Your task to perform on an android device: Open the web browser Image 0: 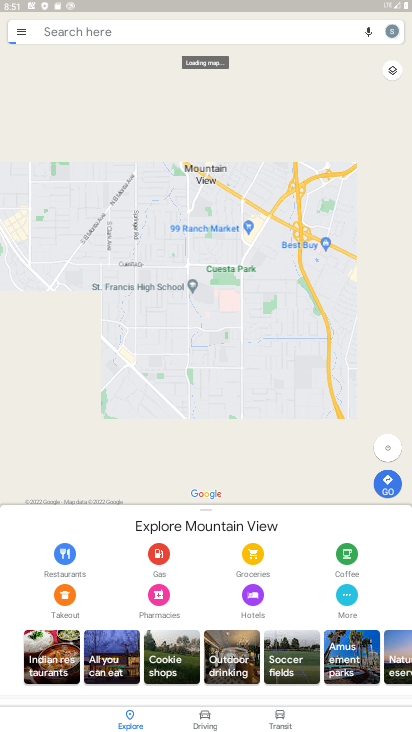
Step 0: press home button
Your task to perform on an android device: Open the web browser Image 1: 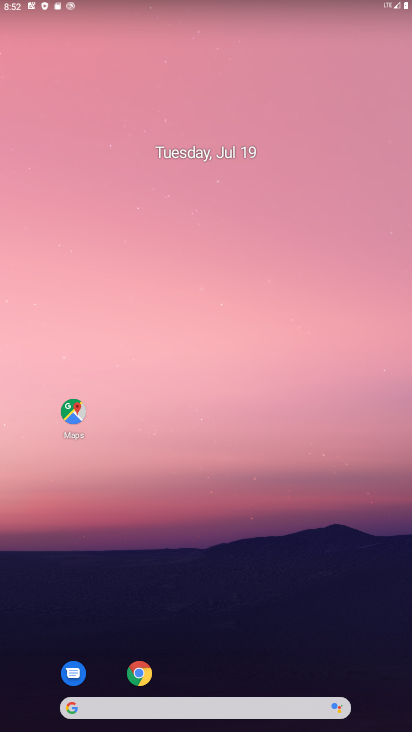
Step 1: drag from (361, 637) to (250, 57)
Your task to perform on an android device: Open the web browser Image 2: 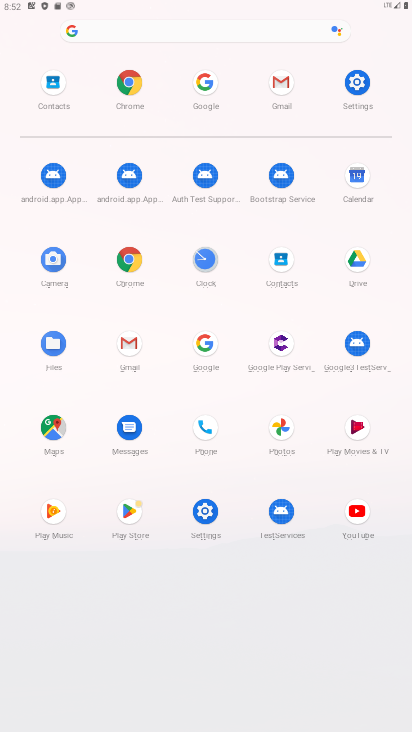
Step 2: click (196, 338)
Your task to perform on an android device: Open the web browser Image 3: 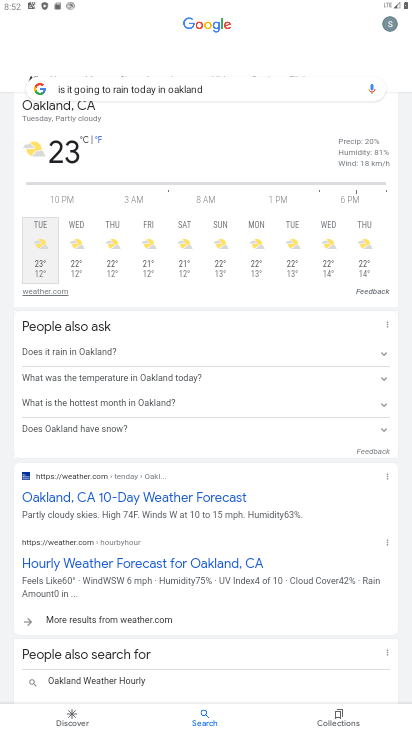
Step 3: press back button
Your task to perform on an android device: Open the web browser Image 4: 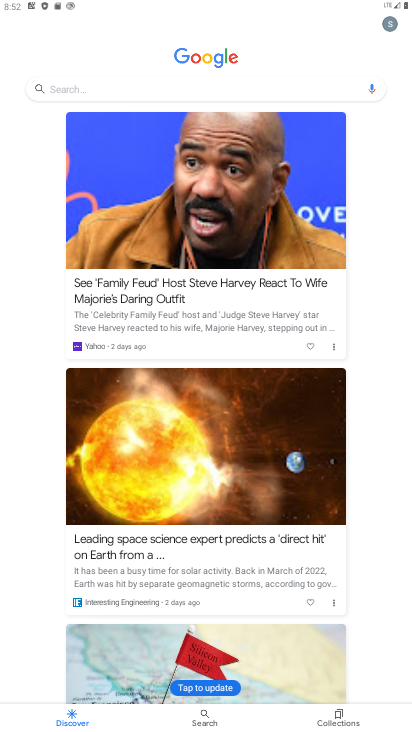
Step 4: click (105, 94)
Your task to perform on an android device: Open the web browser Image 5: 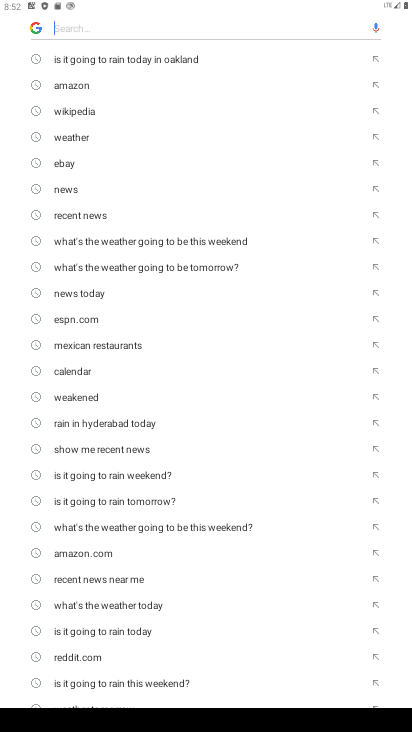
Step 5: type "web browser"
Your task to perform on an android device: Open the web browser Image 6: 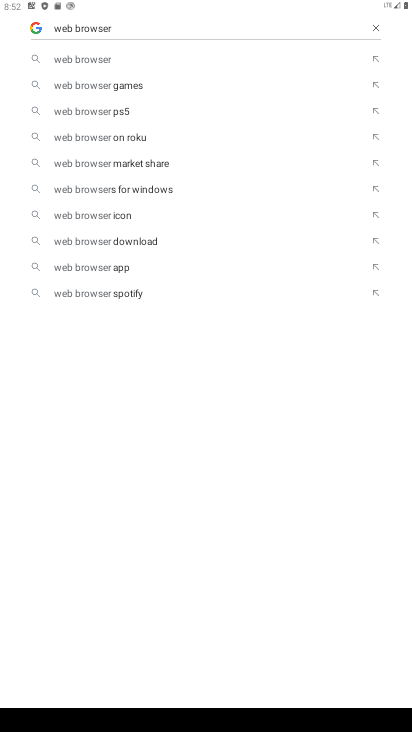
Step 6: click (98, 53)
Your task to perform on an android device: Open the web browser Image 7: 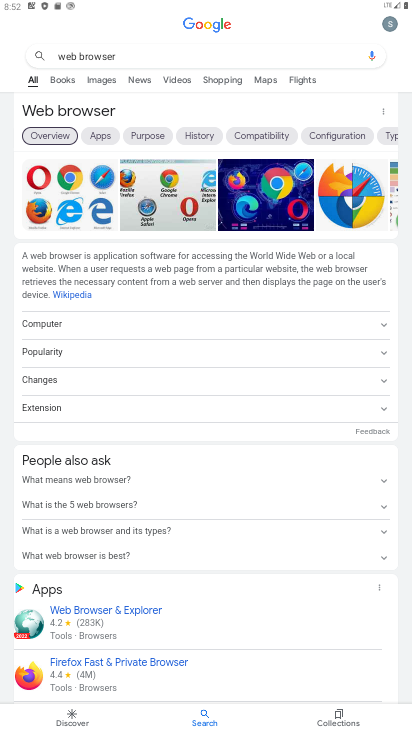
Step 7: task complete